Your task to perform on an android device: Go to Maps Image 0: 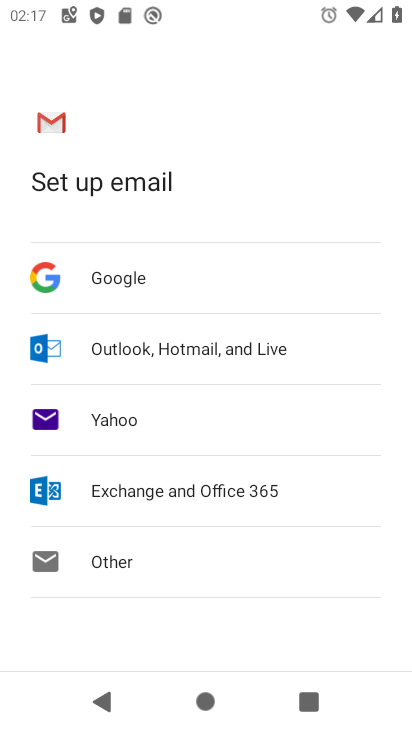
Step 0: press home button
Your task to perform on an android device: Go to Maps Image 1: 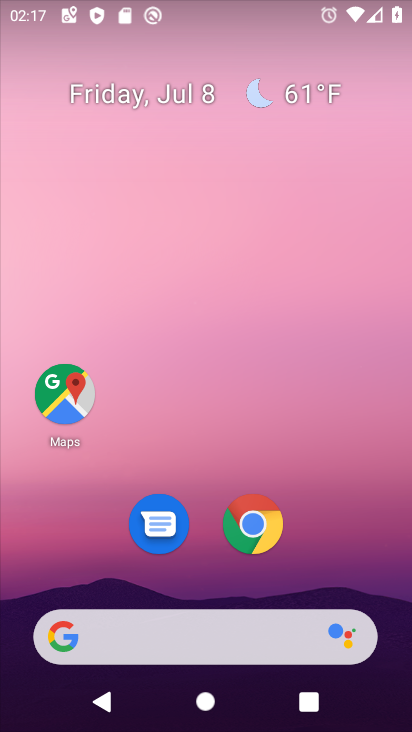
Step 1: click (69, 396)
Your task to perform on an android device: Go to Maps Image 2: 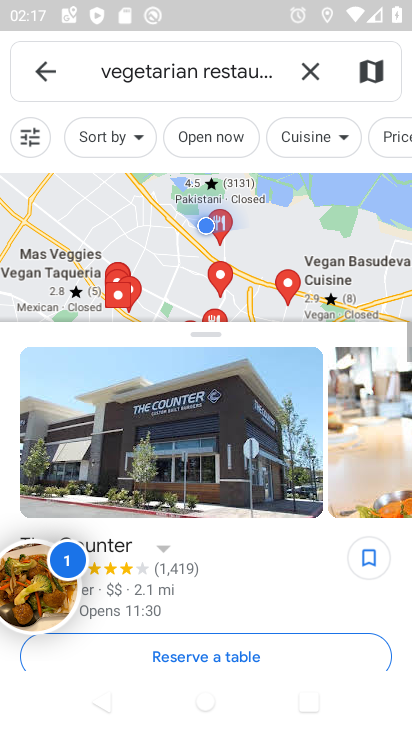
Step 2: click (311, 71)
Your task to perform on an android device: Go to Maps Image 3: 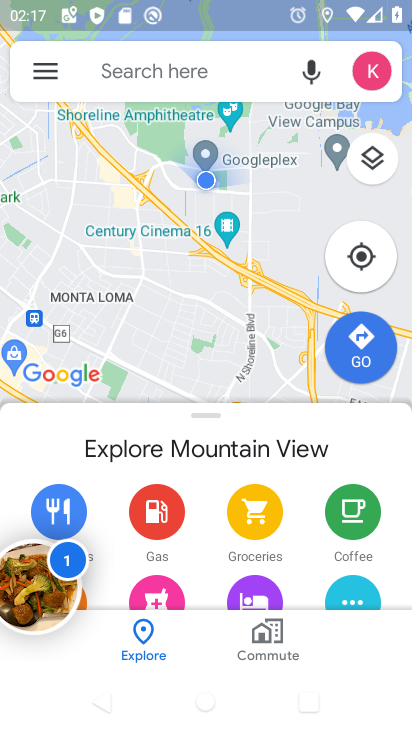
Step 3: task complete